Your task to perform on an android device: Open privacy settings Image 0: 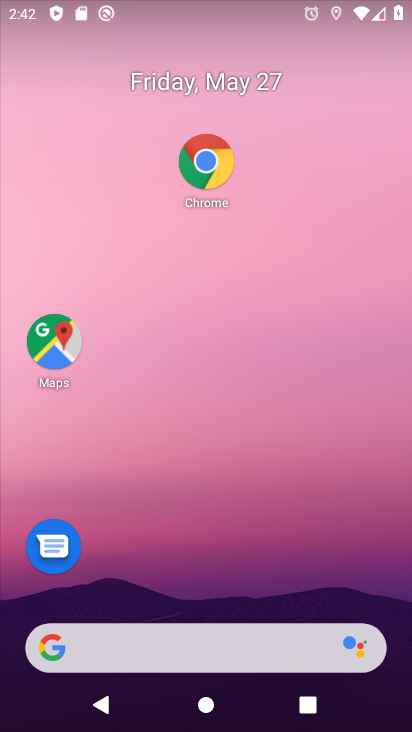
Step 0: drag from (125, 625) to (258, 303)
Your task to perform on an android device: Open privacy settings Image 1: 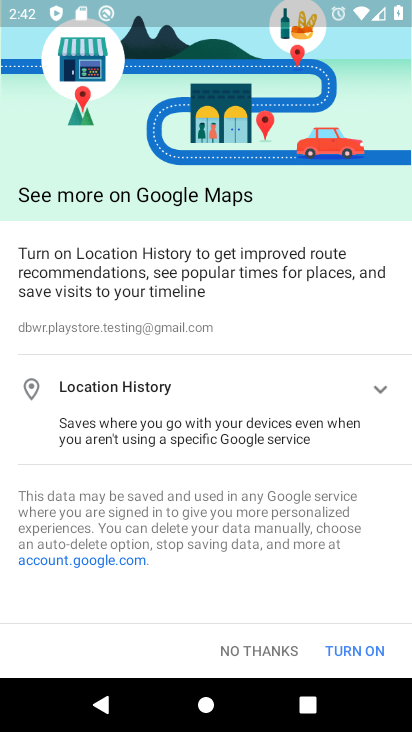
Step 1: click (344, 649)
Your task to perform on an android device: Open privacy settings Image 2: 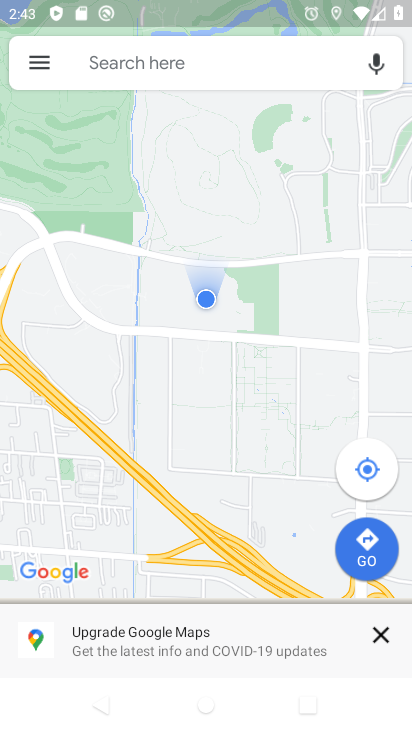
Step 2: press home button
Your task to perform on an android device: Open privacy settings Image 3: 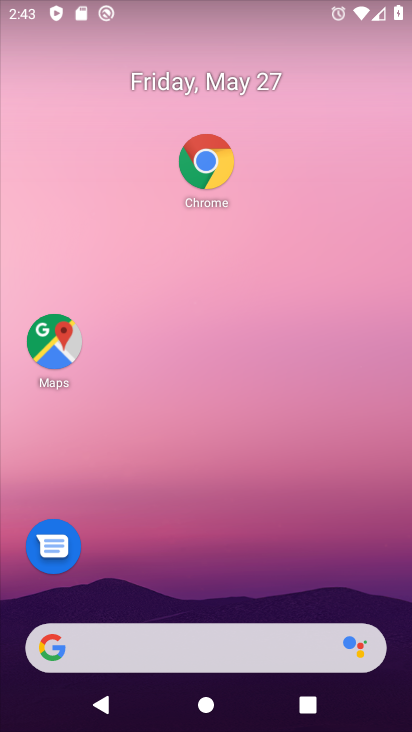
Step 3: drag from (183, 550) to (239, 232)
Your task to perform on an android device: Open privacy settings Image 4: 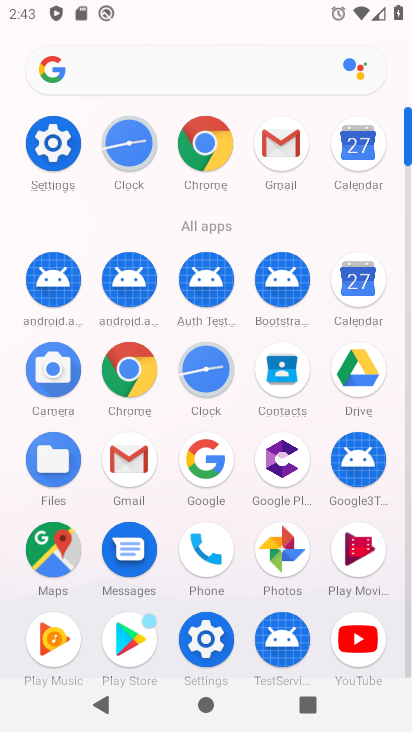
Step 4: click (53, 143)
Your task to perform on an android device: Open privacy settings Image 5: 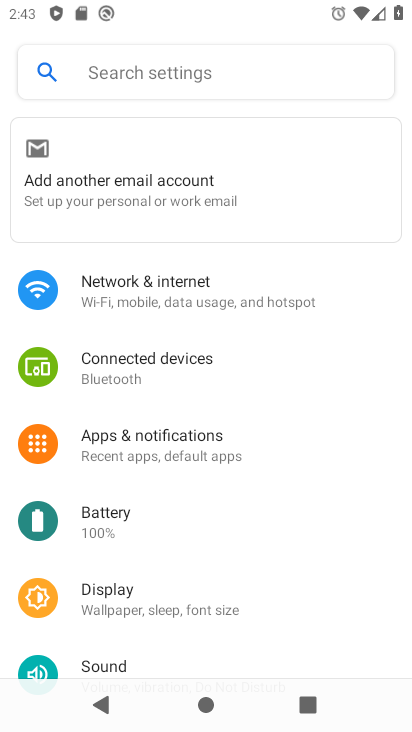
Step 5: drag from (165, 567) to (335, 179)
Your task to perform on an android device: Open privacy settings Image 6: 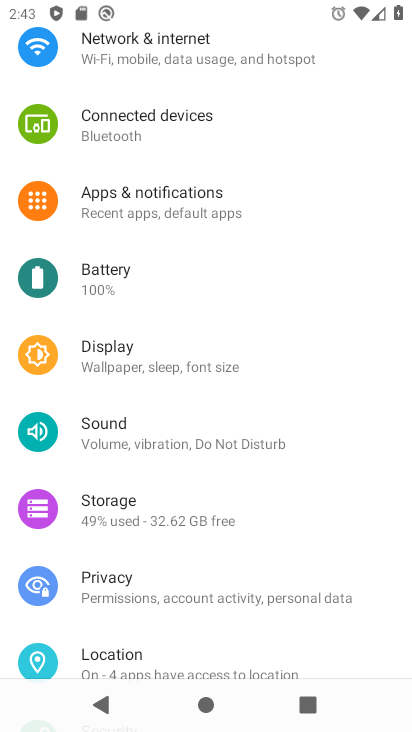
Step 6: click (138, 601)
Your task to perform on an android device: Open privacy settings Image 7: 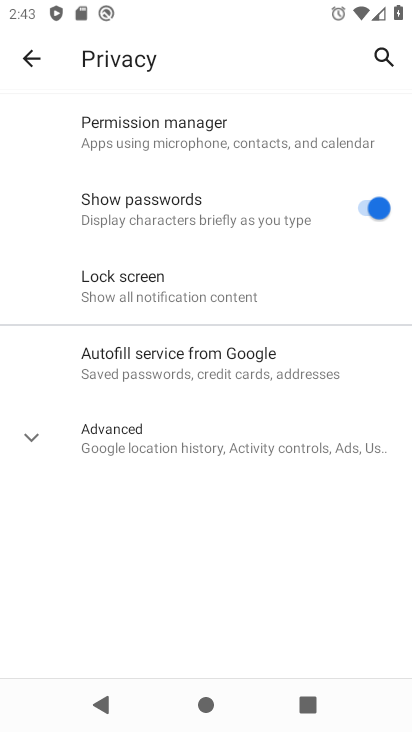
Step 7: task complete